Your task to perform on an android device: toggle show notifications on the lock screen Image 0: 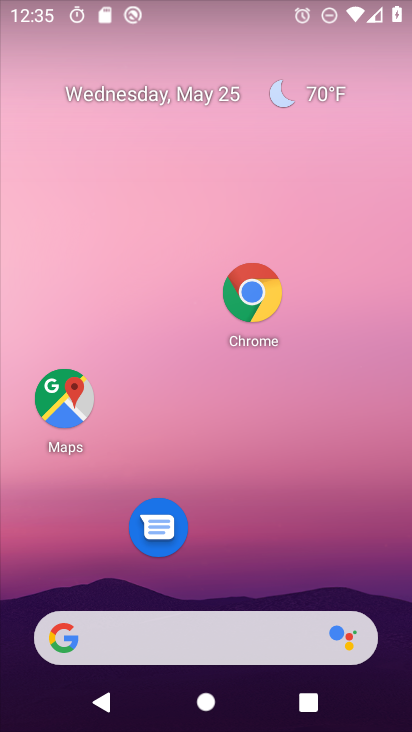
Step 0: drag from (260, 542) to (303, 61)
Your task to perform on an android device: toggle show notifications on the lock screen Image 1: 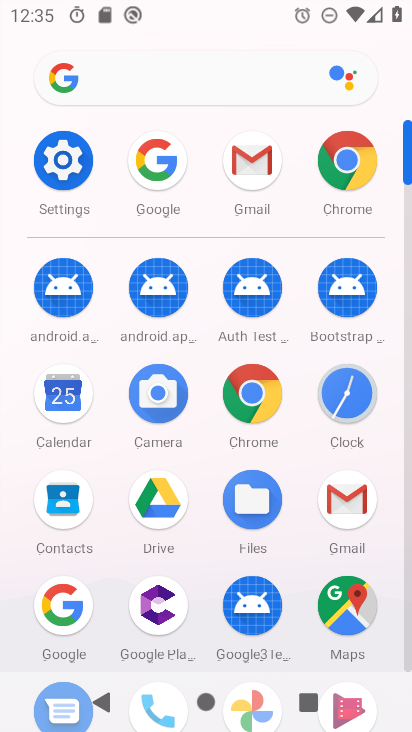
Step 1: click (63, 156)
Your task to perform on an android device: toggle show notifications on the lock screen Image 2: 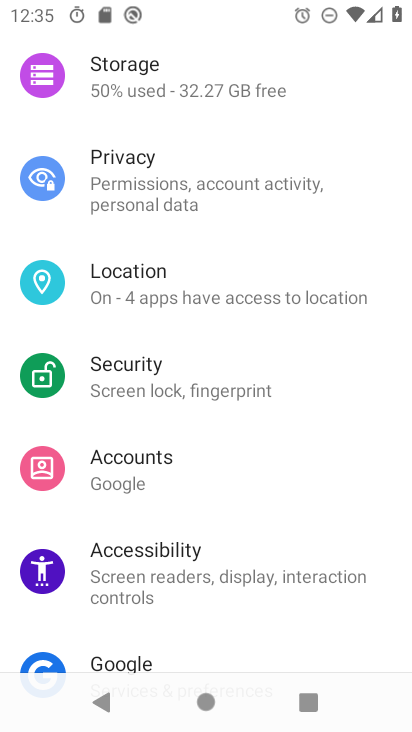
Step 2: click (148, 285)
Your task to perform on an android device: toggle show notifications on the lock screen Image 3: 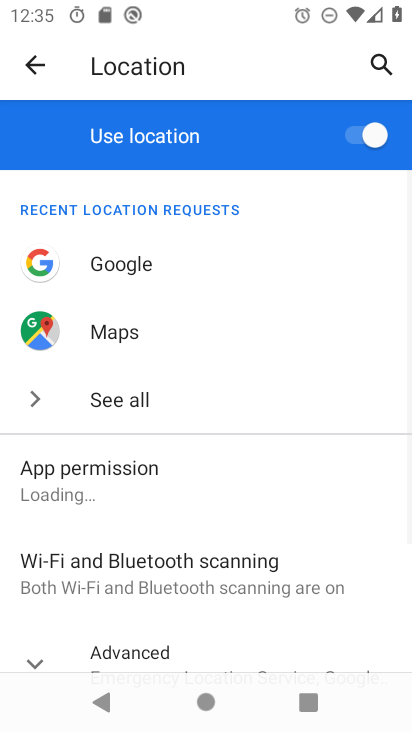
Step 3: press back button
Your task to perform on an android device: toggle show notifications on the lock screen Image 4: 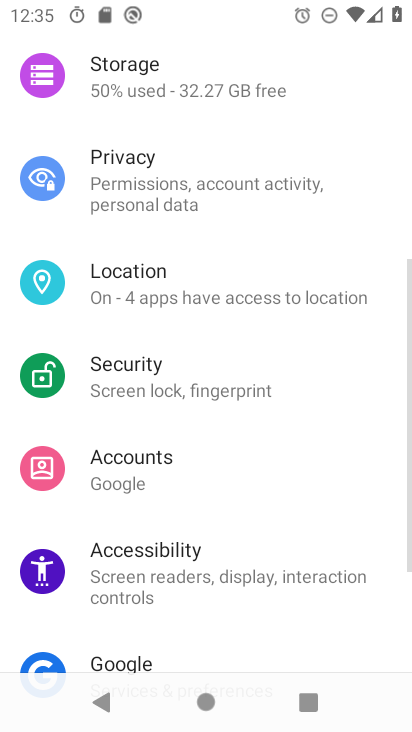
Step 4: drag from (174, 113) to (245, 552)
Your task to perform on an android device: toggle show notifications on the lock screen Image 5: 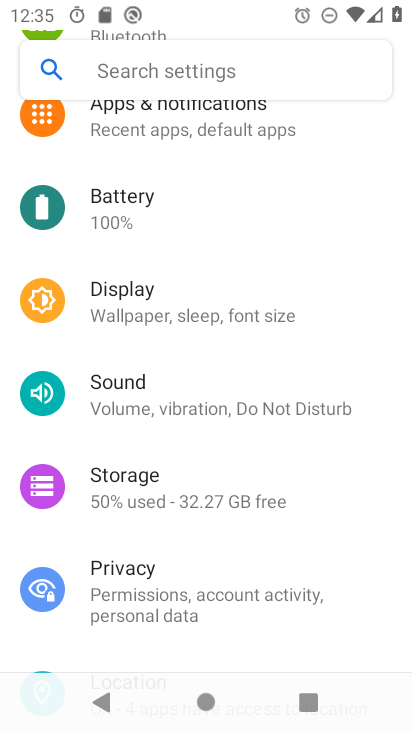
Step 5: click (147, 124)
Your task to perform on an android device: toggle show notifications on the lock screen Image 6: 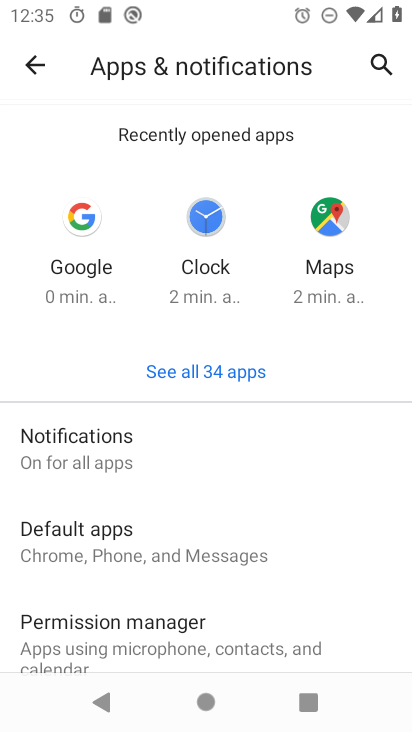
Step 6: click (143, 455)
Your task to perform on an android device: toggle show notifications on the lock screen Image 7: 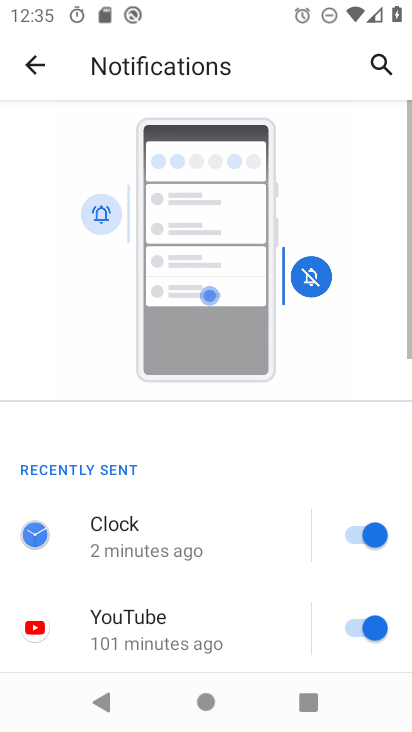
Step 7: drag from (217, 369) to (244, 133)
Your task to perform on an android device: toggle show notifications on the lock screen Image 8: 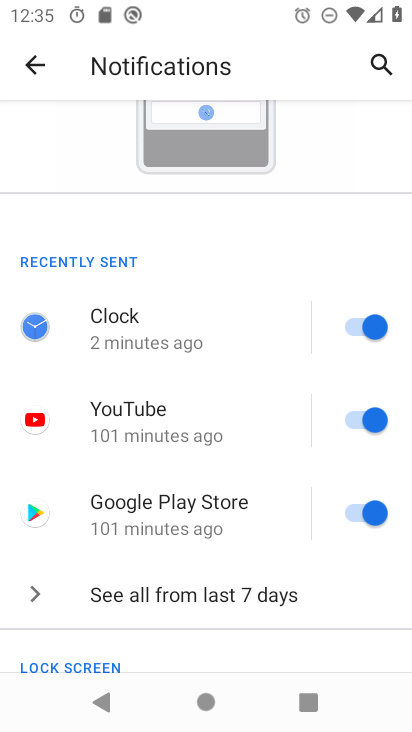
Step 8: drag from (214, 626) to (230, 340)
Your task to perform on an android device: toggle show notifications on the lock screen Image 9: 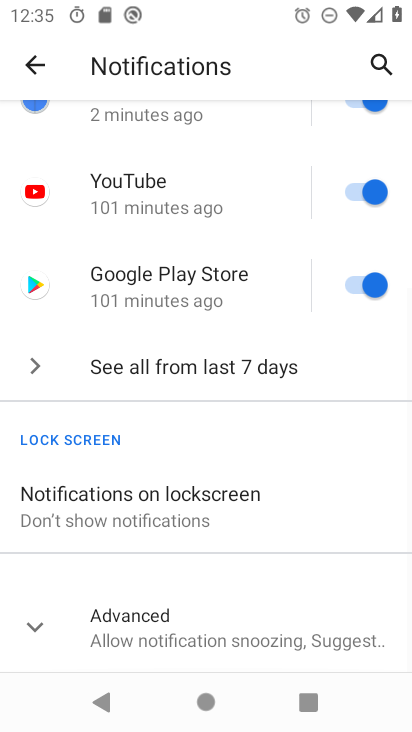
Step 9: click (177, 496)
Your task to perform on an android device: toggle show notifications on the lock screen Image 10: 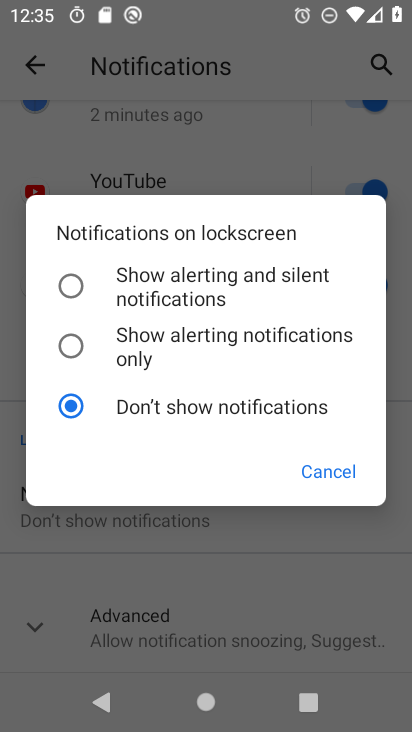
Step 10: click (73, 286)
Your task to perform on an android device: toggle show notifications on the lock screen Image 11: 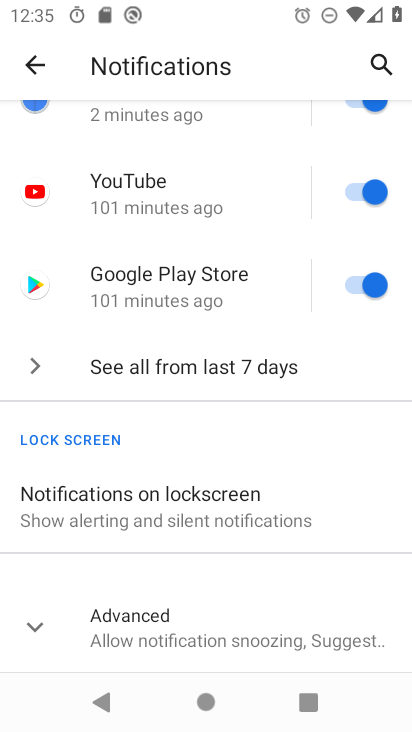
Step 11: task complete